Your task to perform on an android device: Add "apple airpods pro" to the cart on bestbuy.com, then select checkout. Image 0: 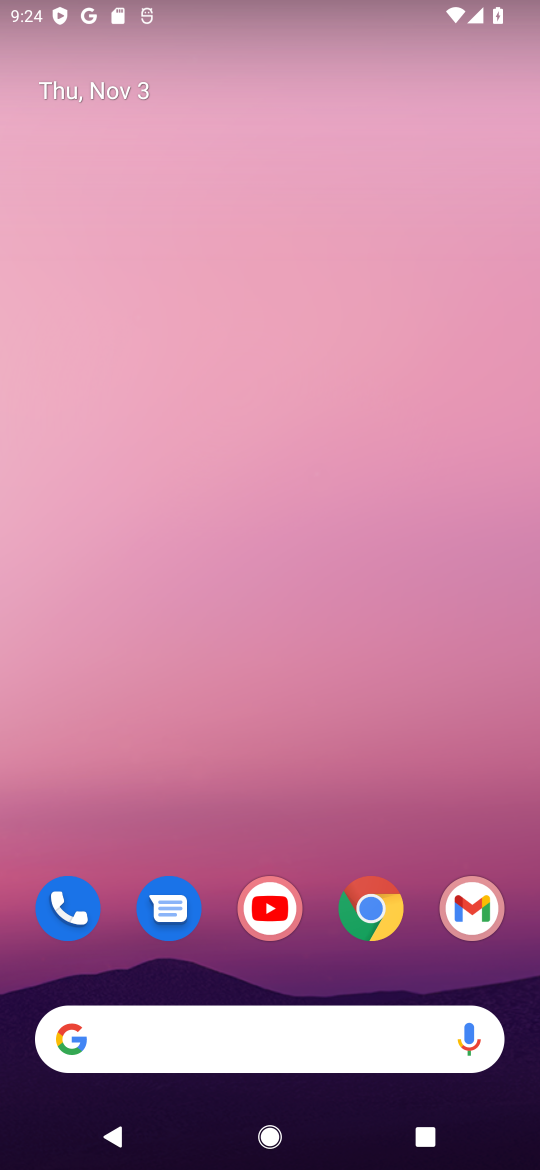
Step 0: click (362, 905)
Your task to perform on an android device: Add "apple airpods pro" to the cart on bestbuy.com, then select checkout. Image 1: 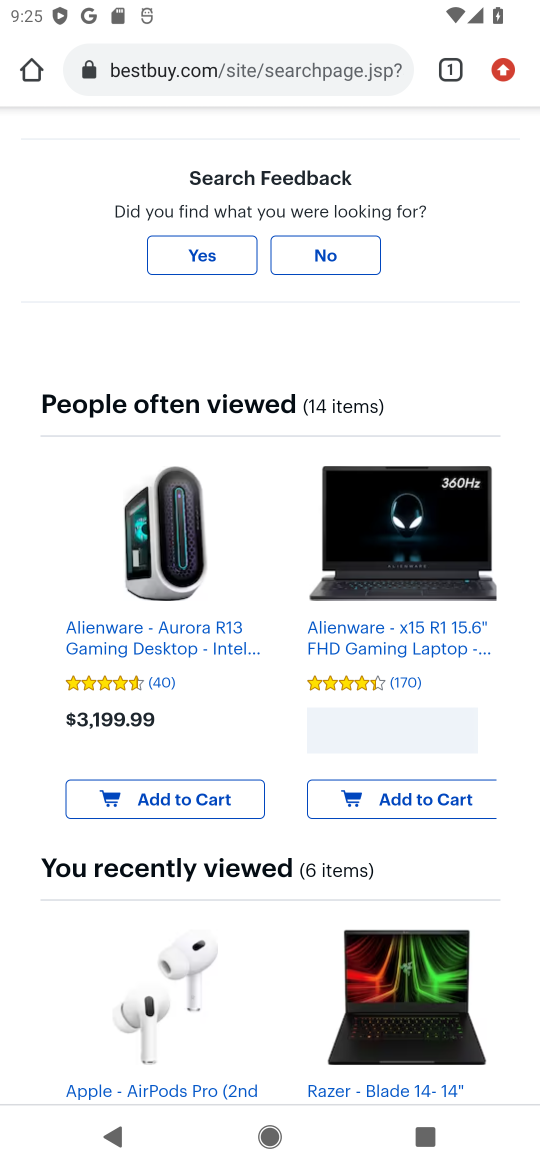
Step 1: drag from (458, 198) to (459, 811)
Your task to perform on an android device: Add "apple airpods pro" to the cart on bestbuy.com, then select checkout. Image 2: 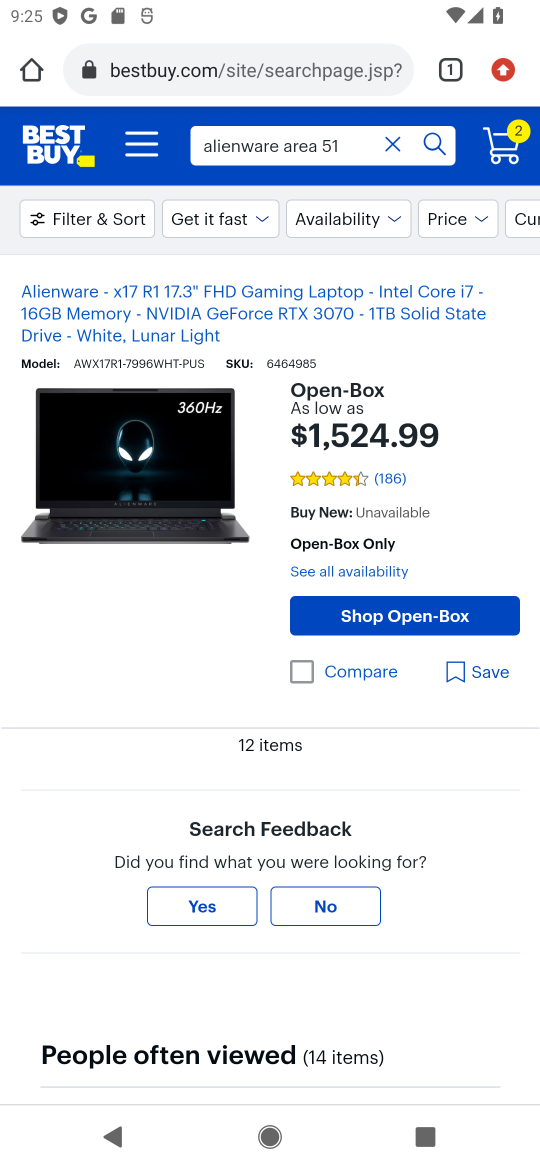
Step 2: drag from (413, 327) to (482, 882)
Your task to perform on an android device: Add "apple airpods pro" to the cart on bestbuy.com, then select checkout. Image 3: 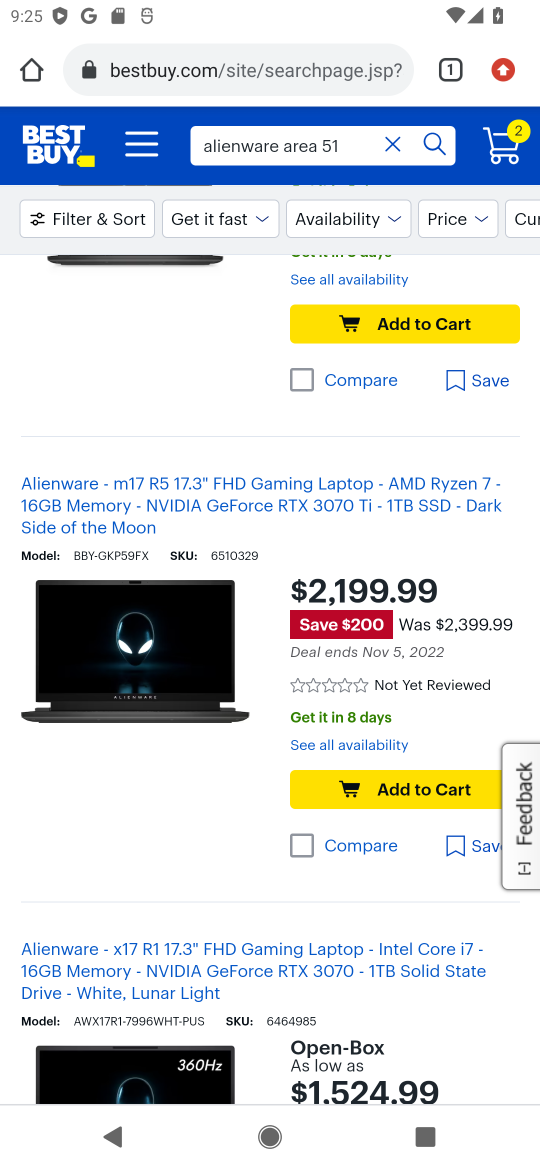
Step 3: click (392, 141)
Your task to perform on an android device: Add "apple airpods pro" to the cart on bestbuy.com, then select checkout. Image 4: 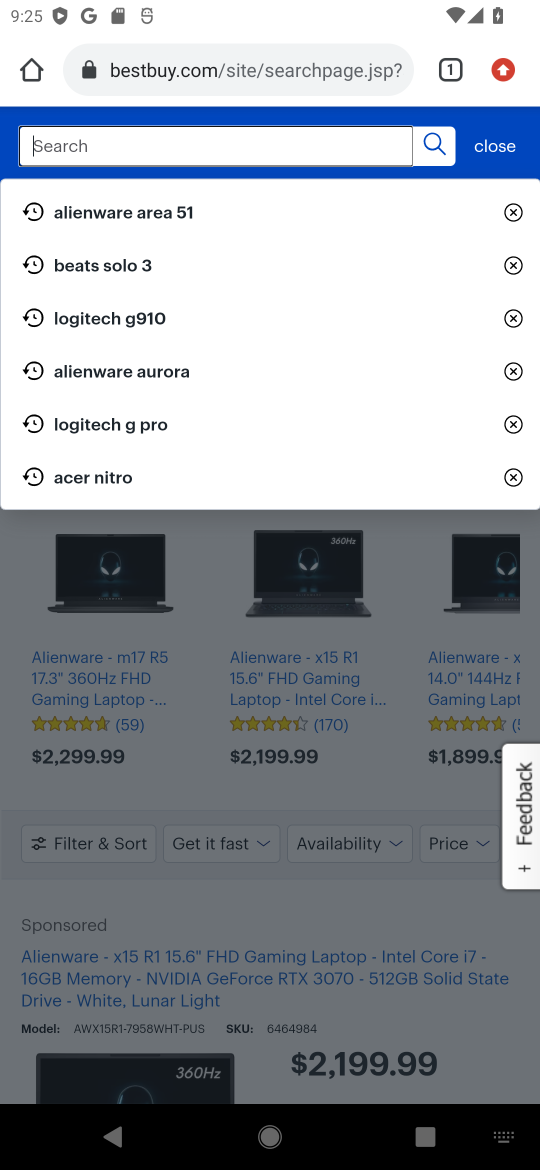
Step 4: type "apple airpods pro"
Your task to perform on an android device: Add "apple airpods pro" to the cart on bestbuy.com, then select checkout. Image 5: 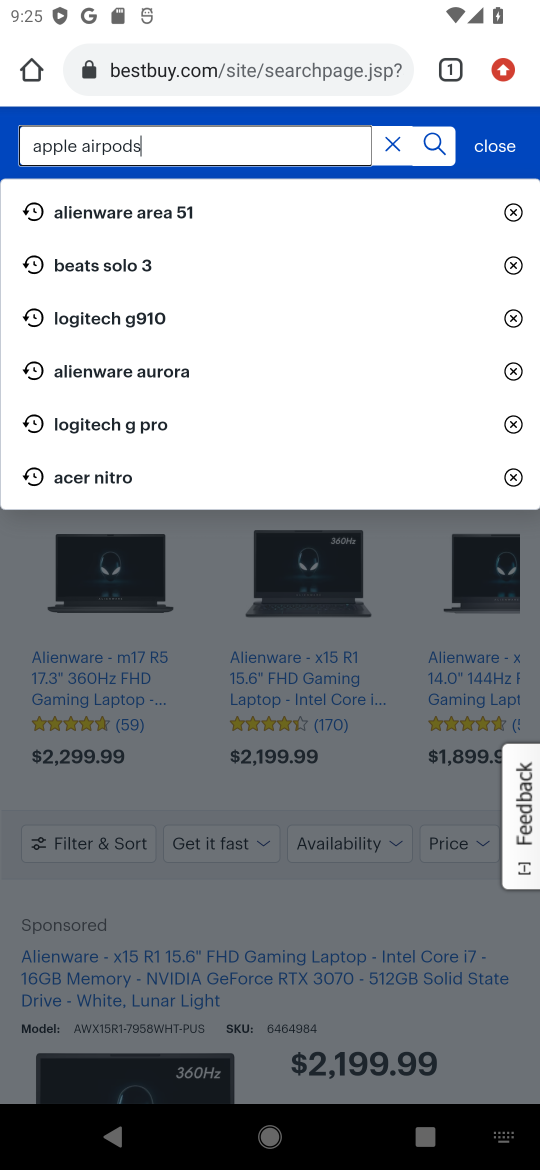
Step 5: press enter
Your task to perform on an android device: Add "apple airpods pro" to the cart on bestbuy.com, then select checkout. Image 6: 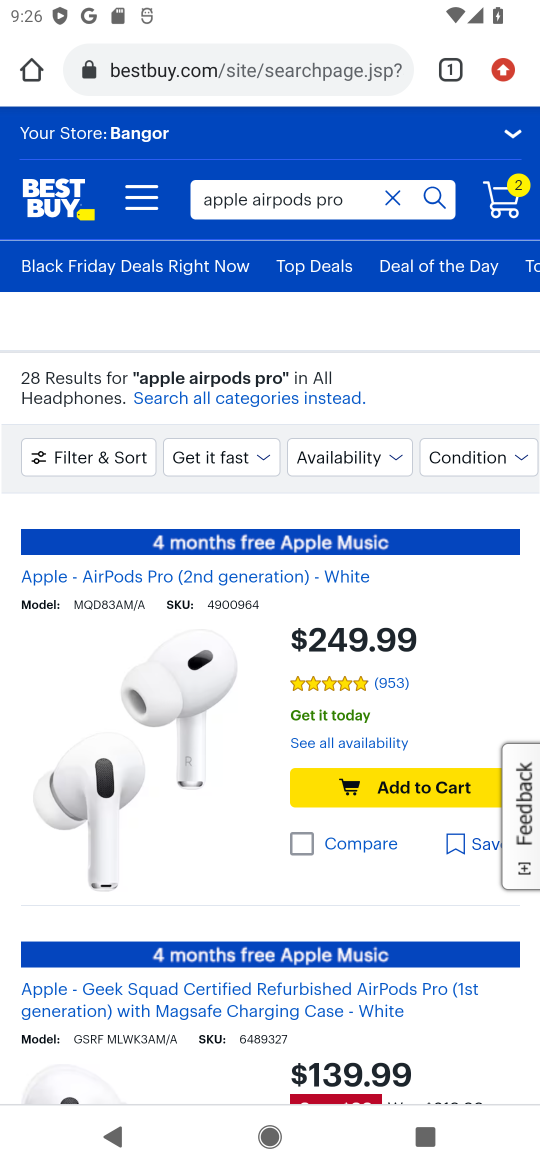
Step 6: click (155, 733)
Your task to perform on an android device: Add "apple airpods pro" to the cart on bestbuy.com, then select checkout. Image 7: 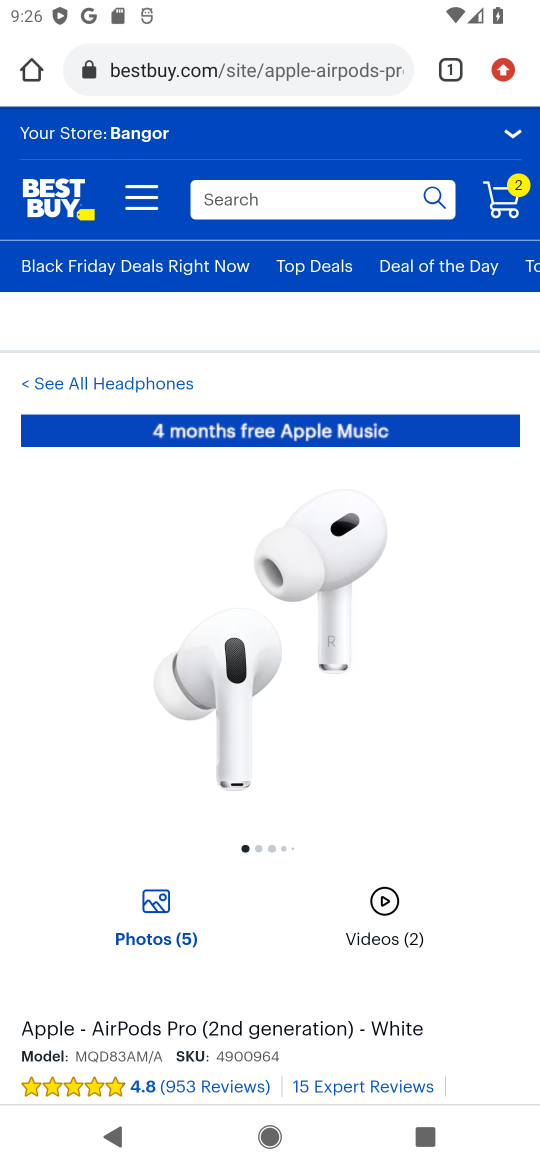
Step 7: drag from (288, 883) to (298, 275)
Your task to perform on an android device: Add "apple airpods pro" to the cart on bestbuy.com, then select checkout. Image 8: 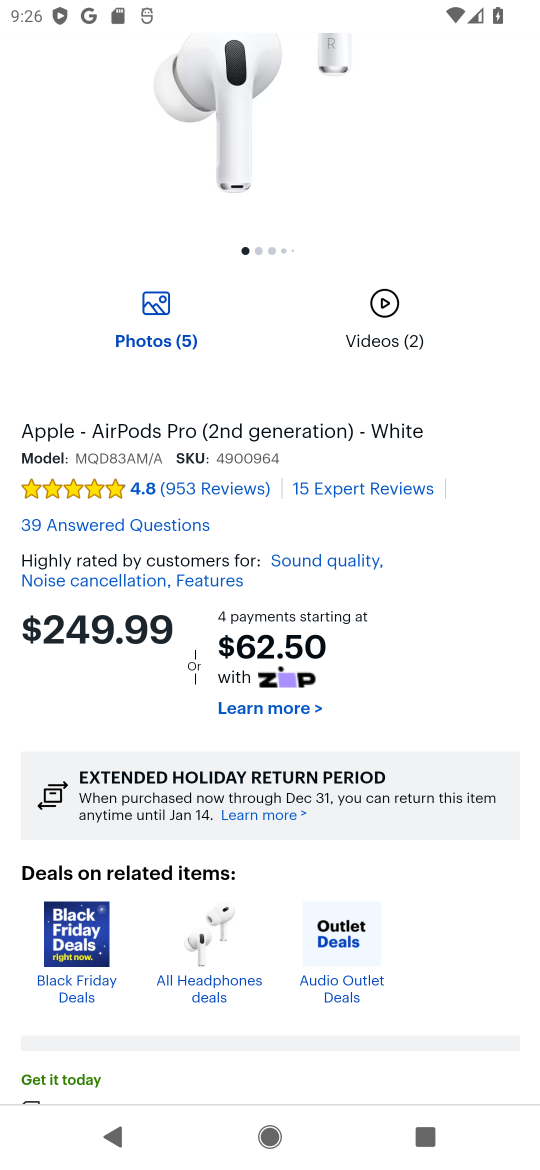
Step 8: drag from (379, 837) to (367, 295)
Your task to perform on an android device: Add "apple airpods pro" to the cart on bestbuy.com, then select checkout. Image 9: 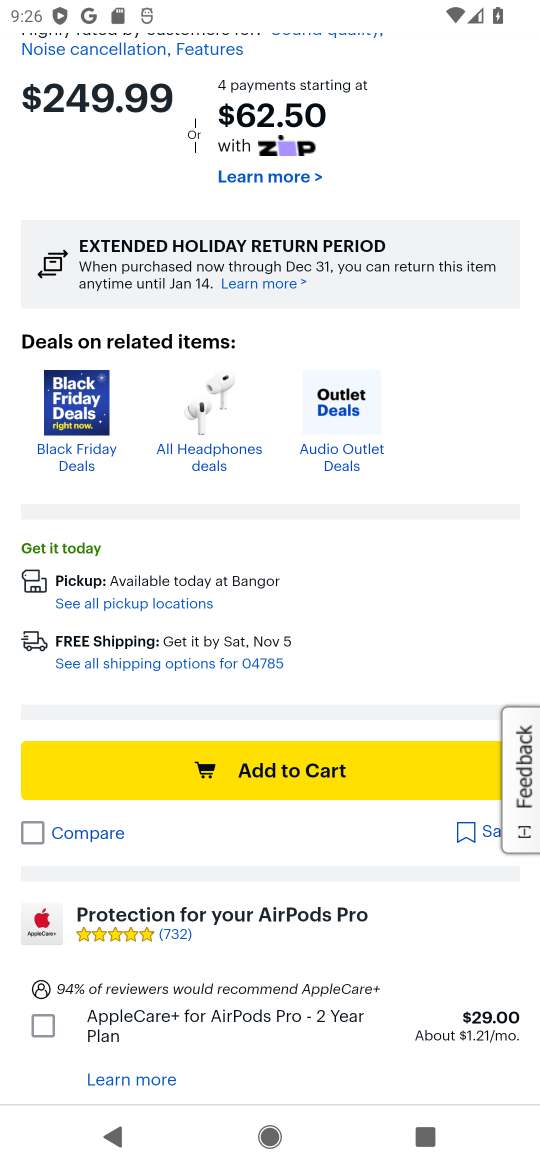
Step 9: click (356, 772)
Your task to perform on an android device: Add "apple airpods pro" to the cart on bestbuy.com, then select checkout. Image 10: 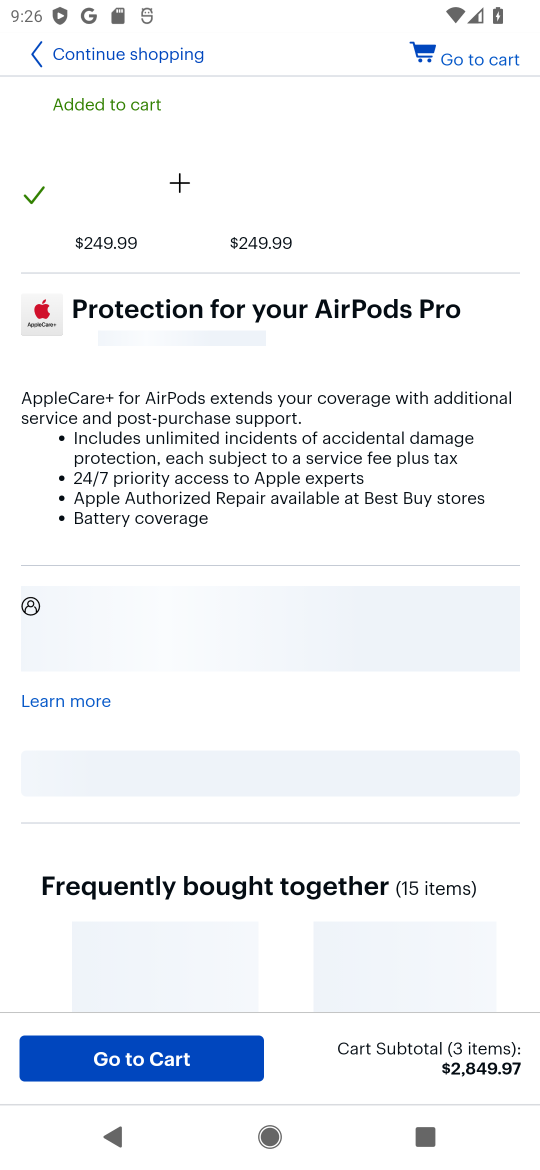
Step 10: click (166, 1059)
Your task to perform on an android device: Add "apple airpods pro" to the cart on bestbuy.com, then select checkout. Image 11: 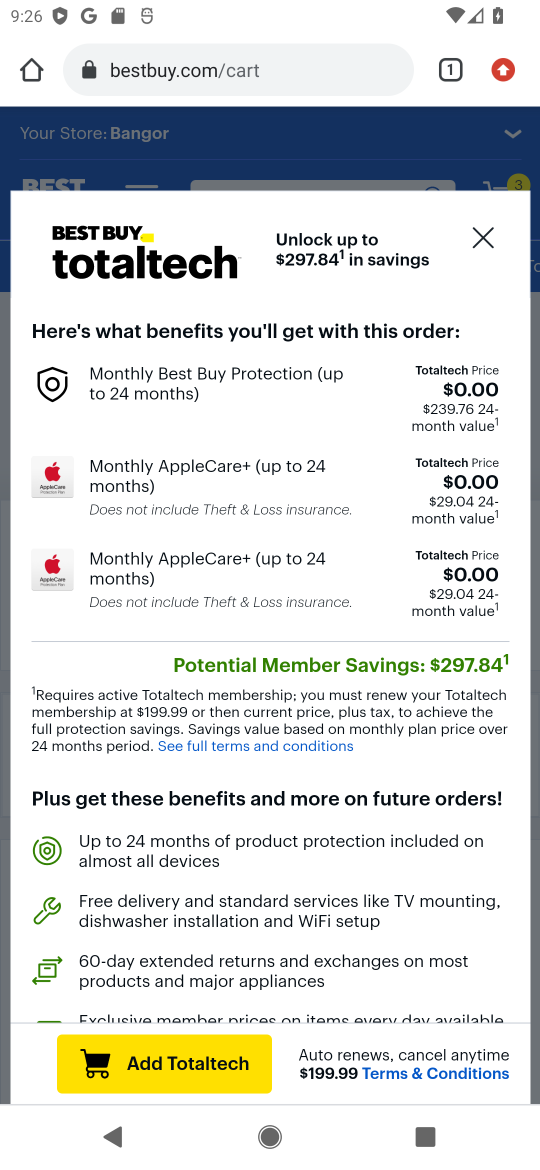
Step 11: click (479, 230)
Your task to perform on an android device: Add "apple airpods pro" to the cart on bestbuy.com, then select checkout. Image 12: 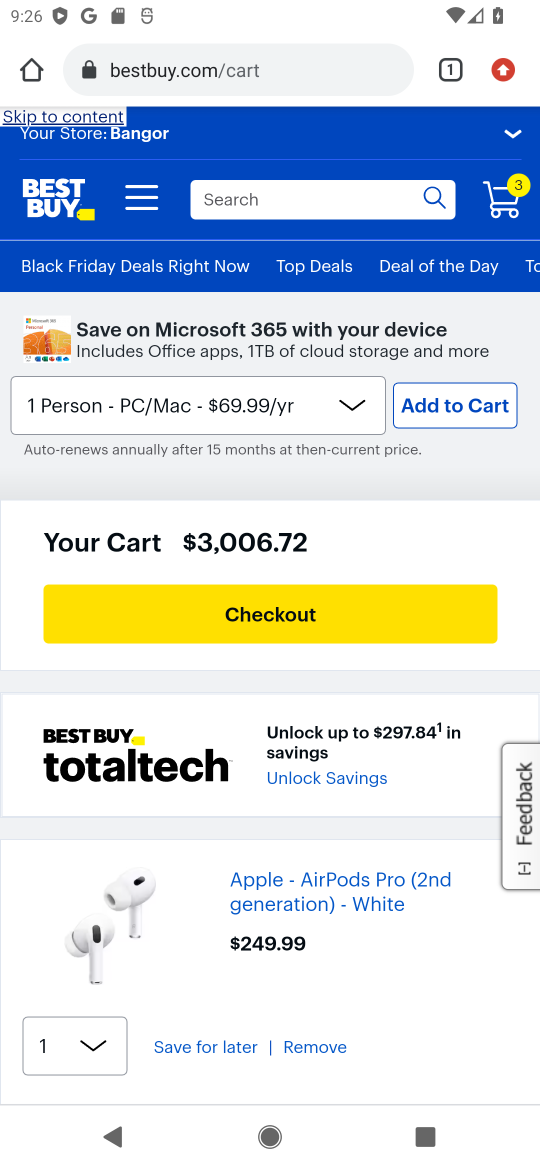
Step 12: click (303, 612)
Your task to perform on an android device: Add "apple airpods pro" to the cart on bestbuy.com, then select checkout. Image 13: 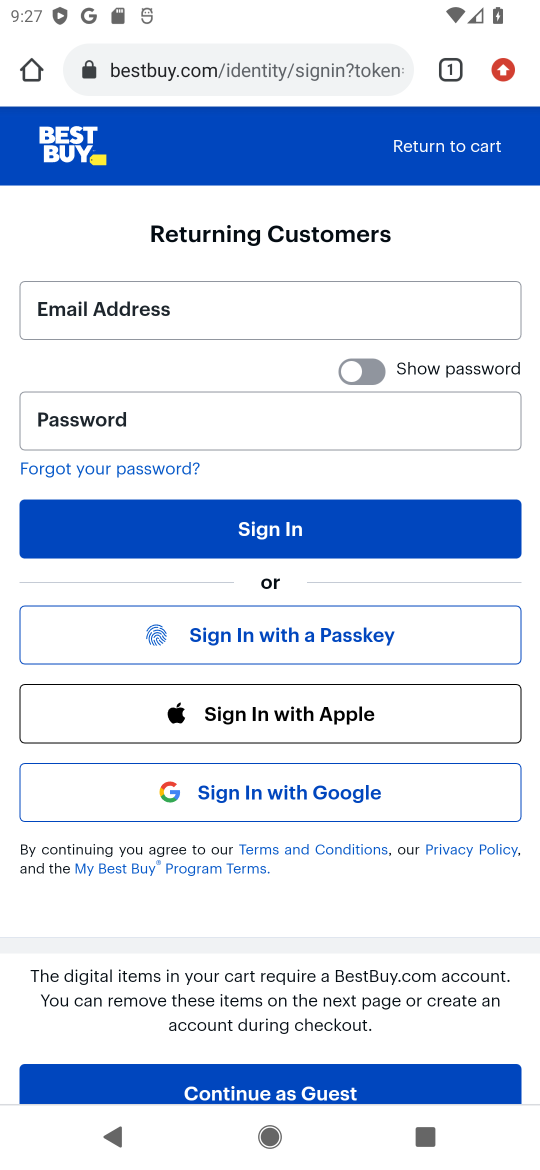
Step 13: task complete